Your task to perform on an android device: Go to notification settings Image 0: 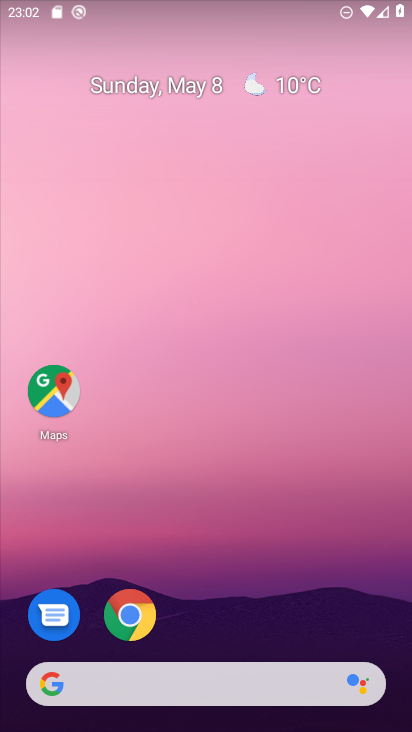
Step 0: drag from (264, 606) to (175, 103)
Your task to perform on an android device: Go to notification settings Image 1: 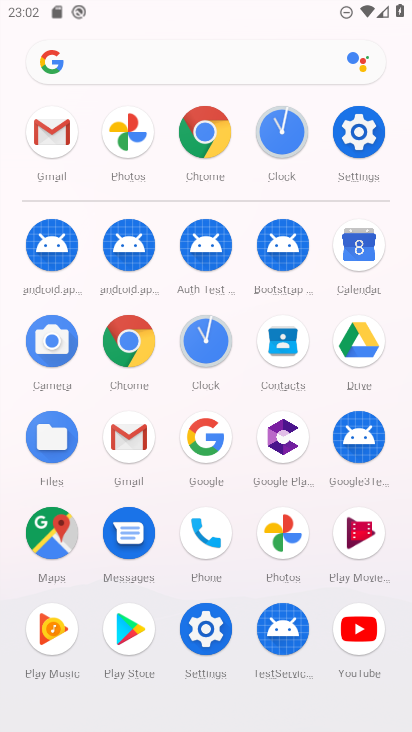
Step 1: click (356, 116)
Your task to perform on an android device: Go to notification settings Image 2: 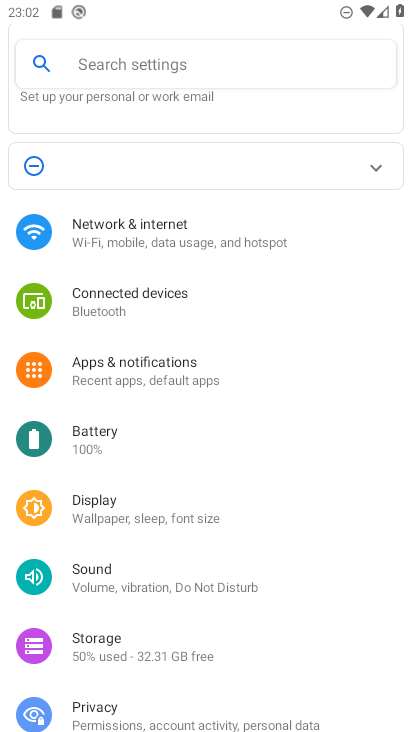
Step 2: click (158, 363)
Your task to perform on an android device: Go to notification settings Image 3: 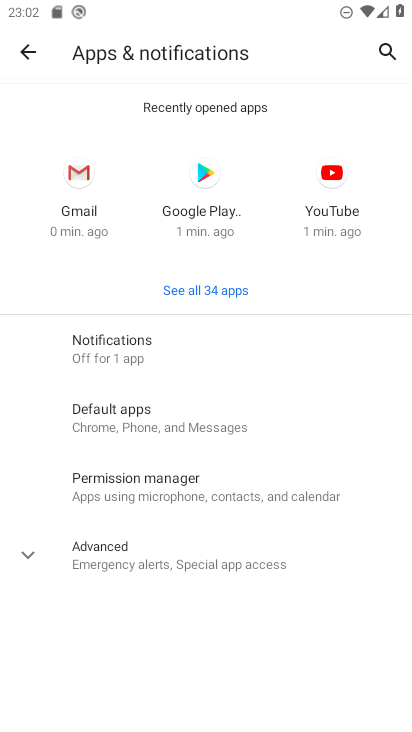
Step 3: click (143, 344)
Your task to perform on an android device: Go to notification settings Image 4: 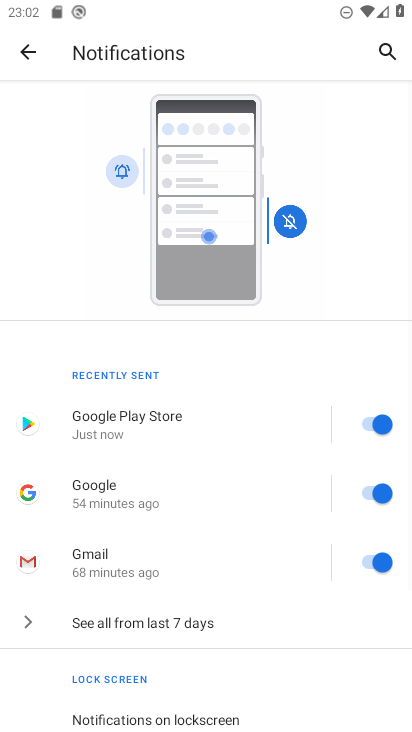
Step 4: task complete